Your task to perform on an android device: delete the emails in spam in the gmail app Image 0: 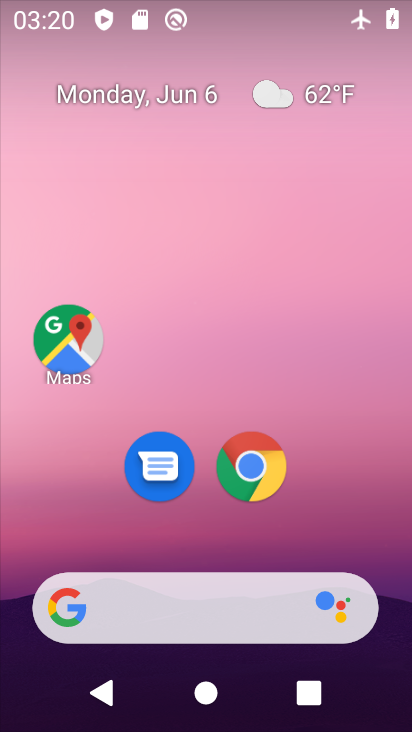
Step 0: drag from (340, 535) to (310, 154)
Your task to perform on an android device: delete the emails in spam in the gmail app Image 1: 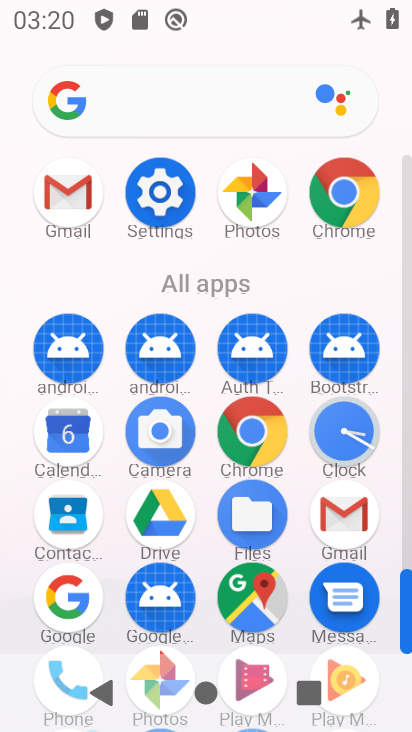
Step 1: click (63, 189)
Your task to perform on an android device: delete the emails in spam in the gmail app Image 2: 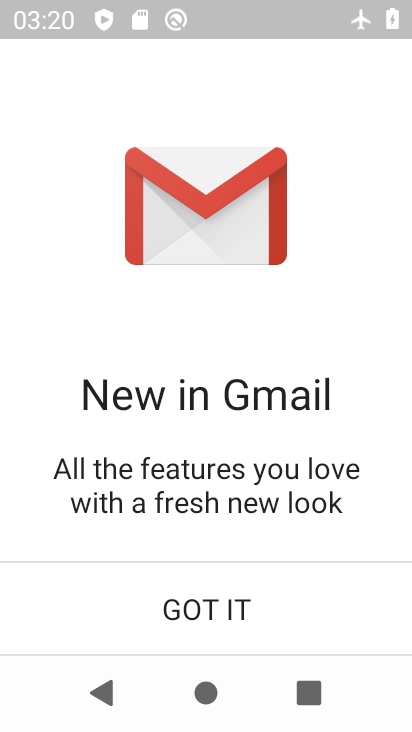
Step 2: click (245, 625)
Your task to perform on an android device: delete the emails in spam in the gmail app Image 3: 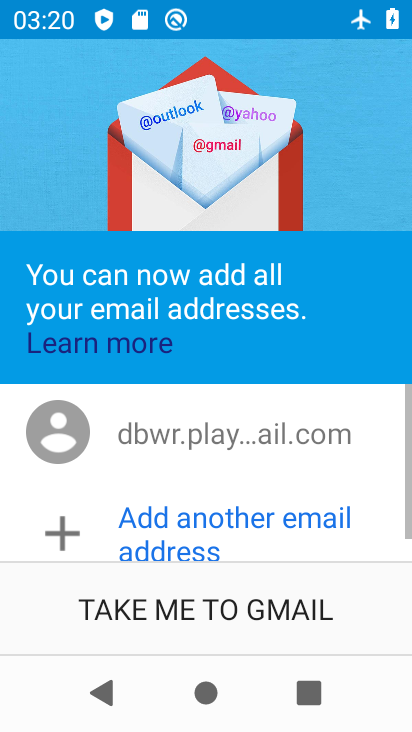
Step 3: click (250, 581)
Your task to perform on an android device: delete the emails in spam in the gmail app Image 4: 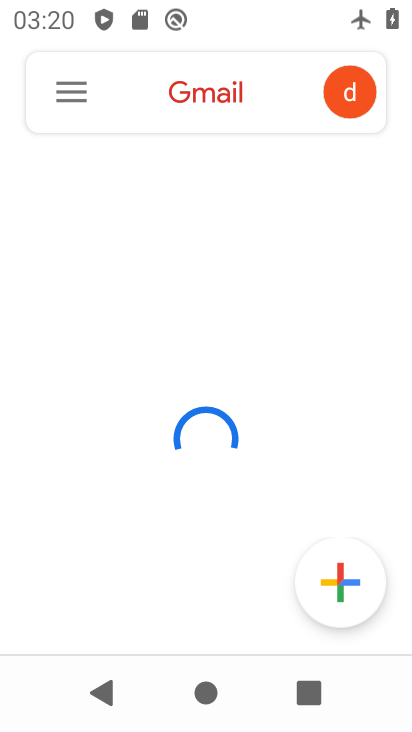
Step 4: click (74, 84)
Your task to perform on an android device: delete the emails in spam in the gmail app Image 5: 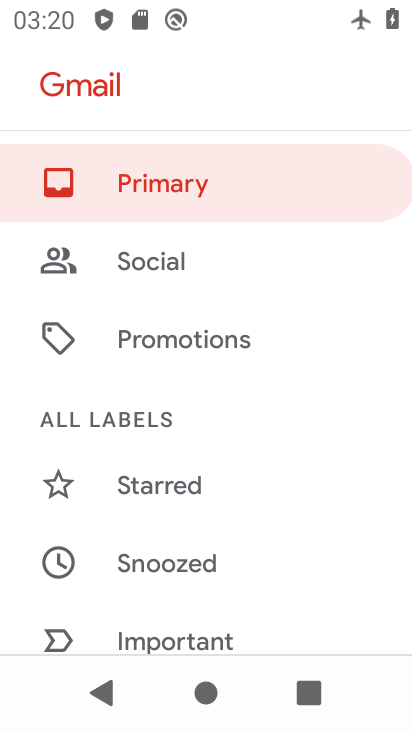
Step 5: drag from (227, 517) to (239, 121)
Your task to perform on an android device: delete the emails in spam in the gmail app Image 6: 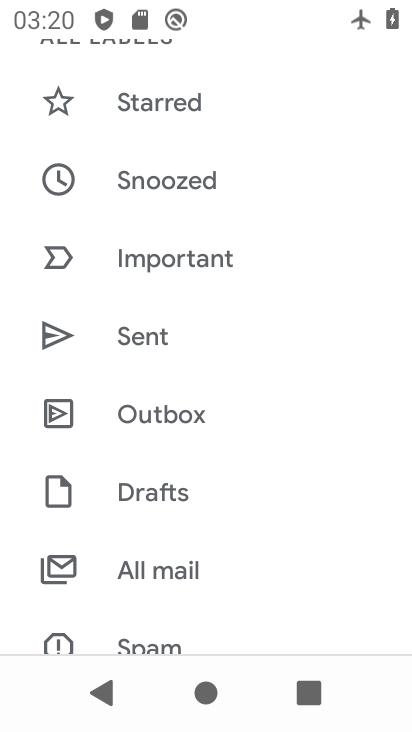
Step 6: drag from (243, 582) to (243, 181)
Your task to perform on an android device: delete the emails in spam in the gmail app Image 7: 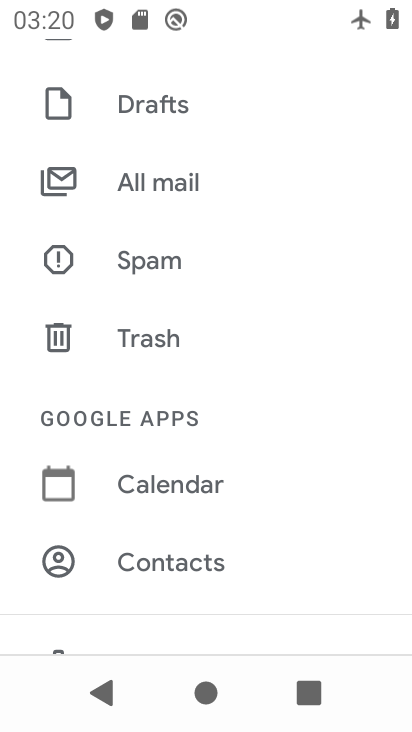
Step 7: click (148, 274)
Your task to perform on an android device: delete the emails in spam in the gmail app Image 8: 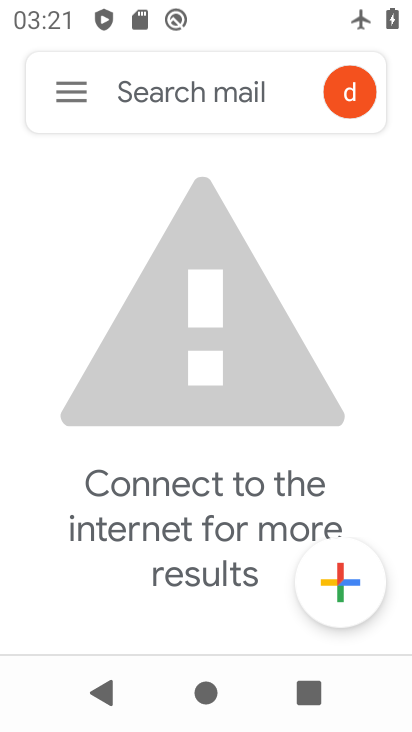
Step 8: task complete